Your task to perform on an android device: Search for vegetarian restaurants on Maps Image 0: 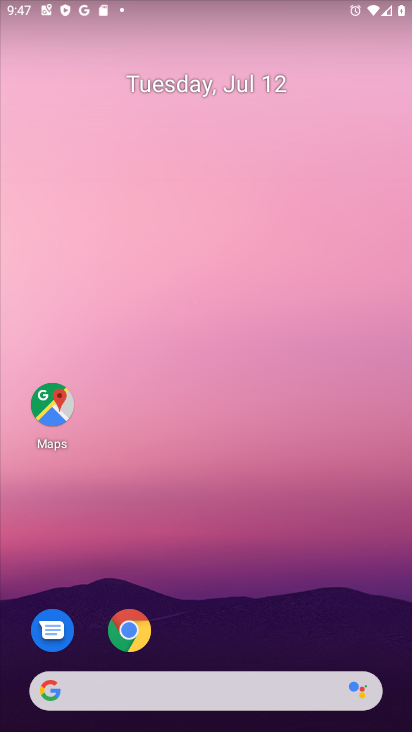
Step 0: click (52, 395)
Your task to perform on an android device: Search for vegetarian restaurants on Maps Image 1: 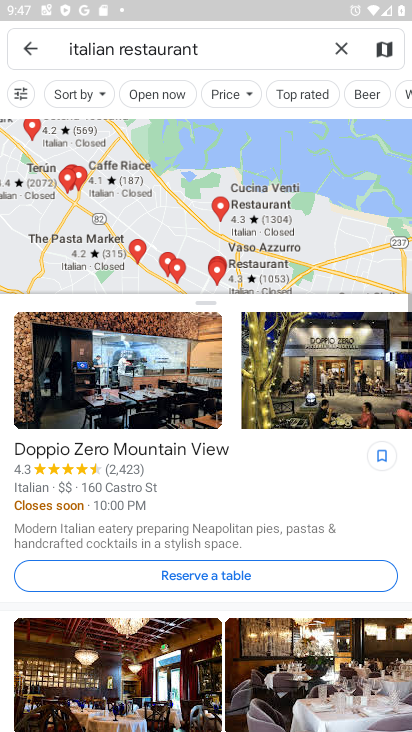
Step 1: click (339, 48)
Your task to perform on an android device: Search for vegetarian restaurants on Maps Image 2: 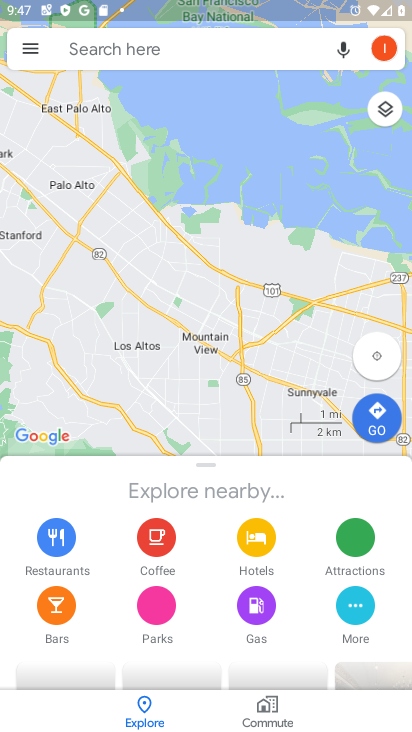
Step 2: click (172, 50)
Your task to perform on an android device: Search for vegetarian restaurants on Maps Image 3: 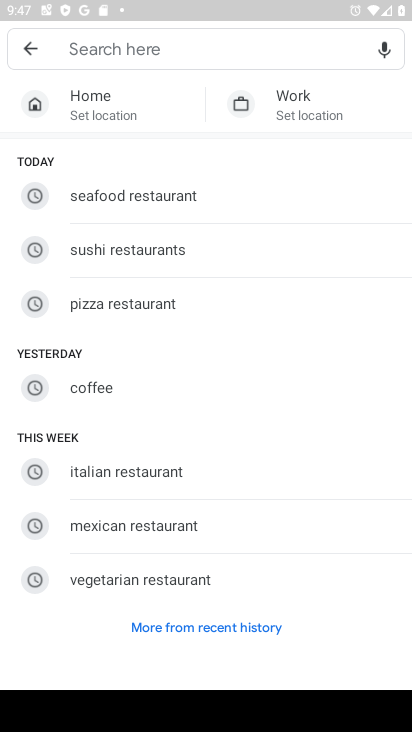
Step 3: click (112, 582)
Your task to perform on an android device: Search for vegetarian restaurants on Maps Image 4: 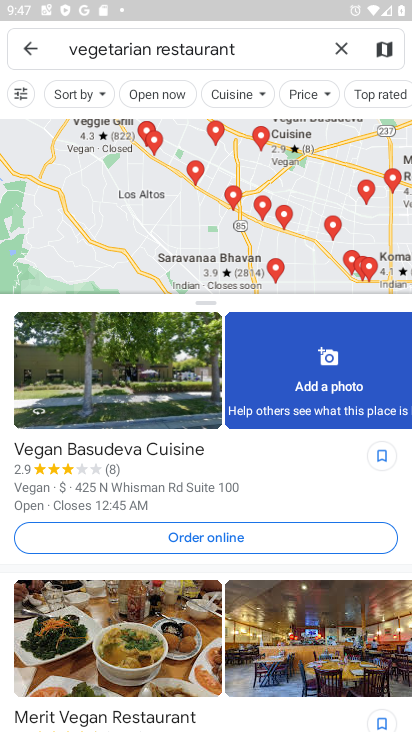
Step 4: task complete